Your task to perform on an android device: Open my contact list Image 0: 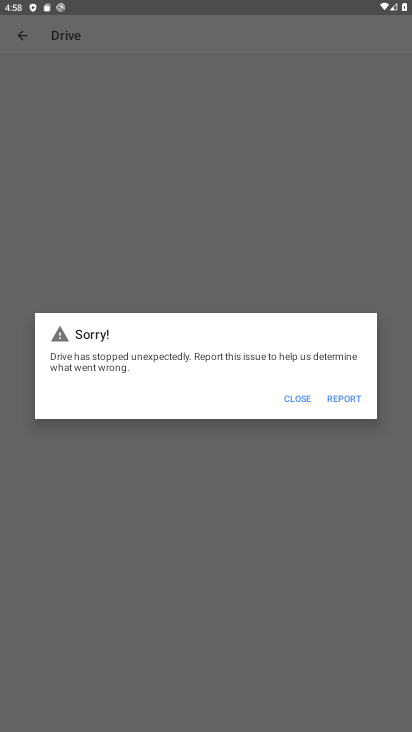
Step 0: press home button
Your task to perform on an android device: Open my contact list Image 1: 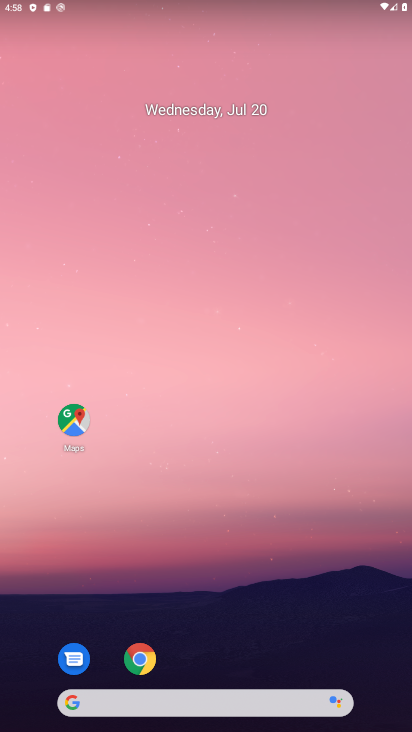
Step 1: drag from (172, 687) to (176, 265)
Your task to perform on an android device: Open my contact list Image 2: 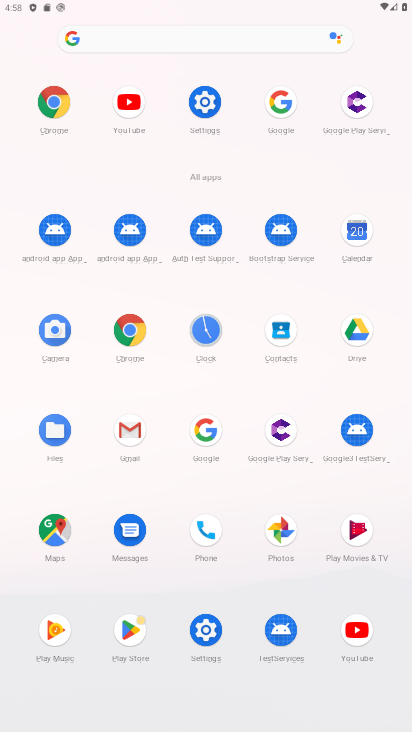
Step 2: click (270, 337)
Your task to perform on an android device: Open my contact list Image 3: 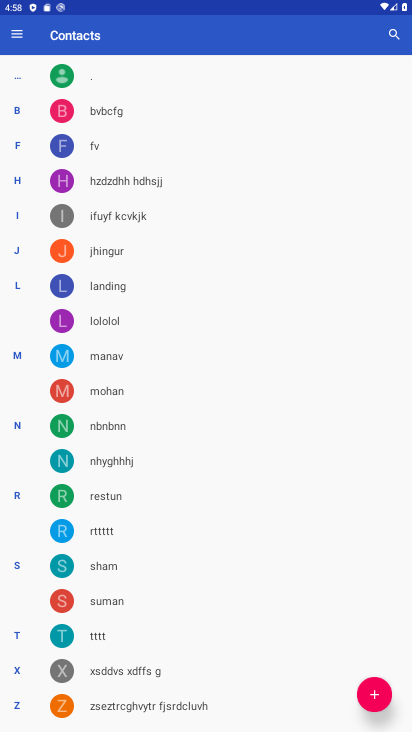
Step 3: task complete